Your task to perform on an android device: Open calendar and show me the second week of next month Image 0: 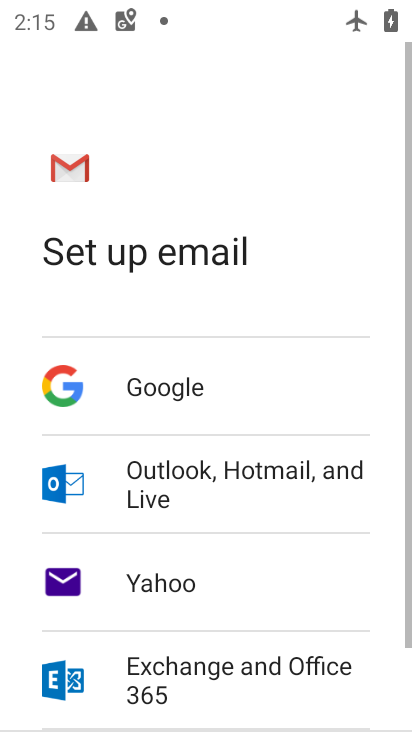
Step 0: press home button
Your task to perform on an android device: Open calendar and show me the second week of next month Image 1: 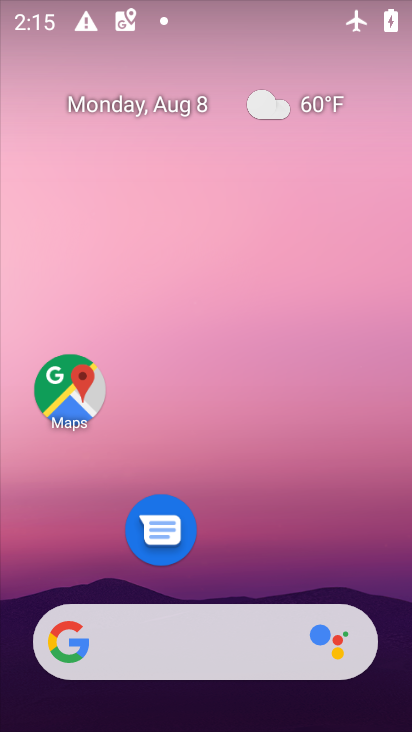
Step 1: drag from (238, 575) to (229, 27)
Your task to perform on an android device: Open calendar and show me the second week of next month Image 2: 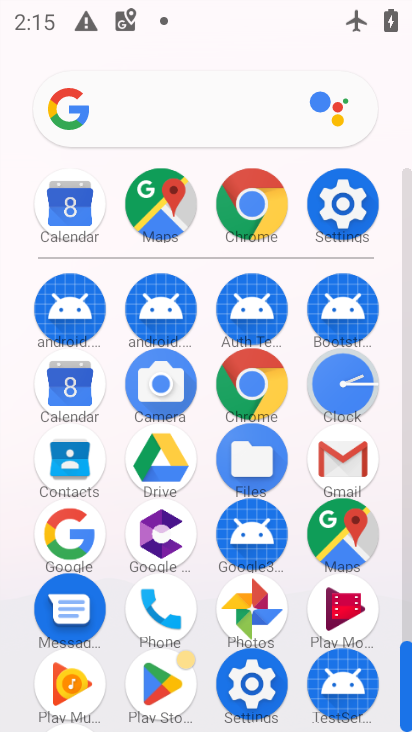
Step 2: click (72, 388)
Your task to perform on an android device: Open calendar and show me the second week of next month Image 3: 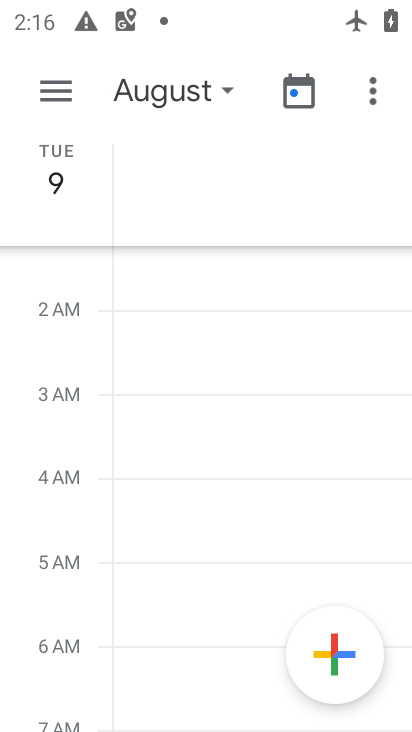
Step 3: click (222, 87)
Your task to perform on an android device: Open calendar and show me the second week of next month Image 4: 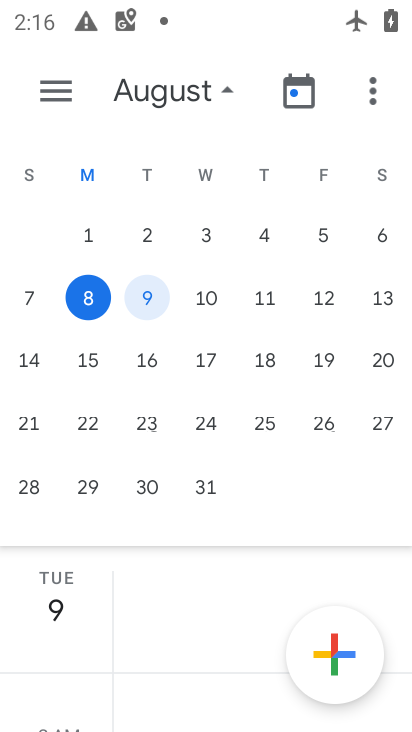
Step 4: drag from (354, 328) to (61, 298)
Your task to perform on an android device: Open calendar and show me the second week of next month Image 5: 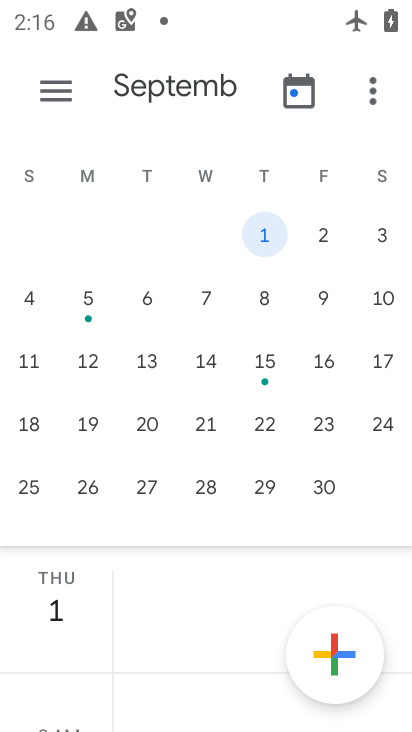
Step 5: click (91, 361)
Your task to perform on an android device: Open calendar and show me the second week of next month Image 6: 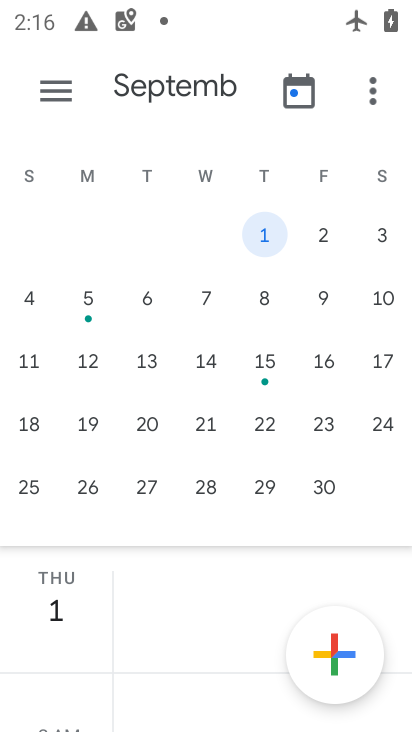
Step 6: click (91, 364)
Your task to perform on an android device: Open calendar and show me the second week of next month Image 7: 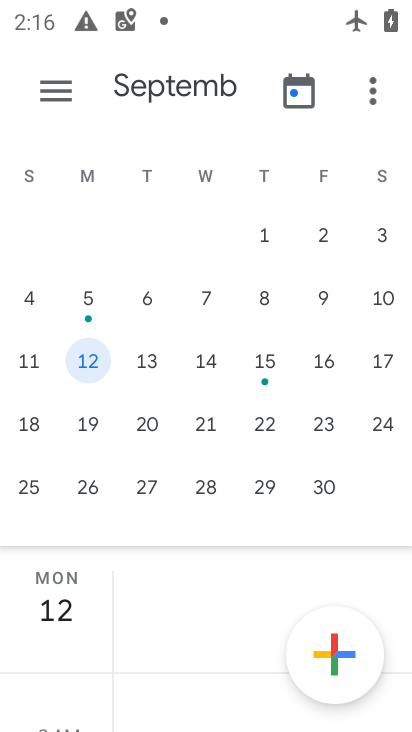
Step 7: click (65, 89)
Your task to perform on an android device: Open calendar and show me the second week of next month Image 8: 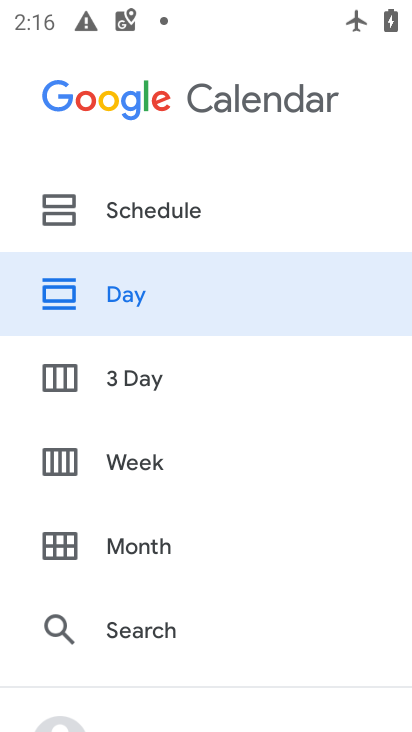
Step 8: click (130, 457)
Your task to perform on an android device: Open calendar and show me the second week of next month Image 9: 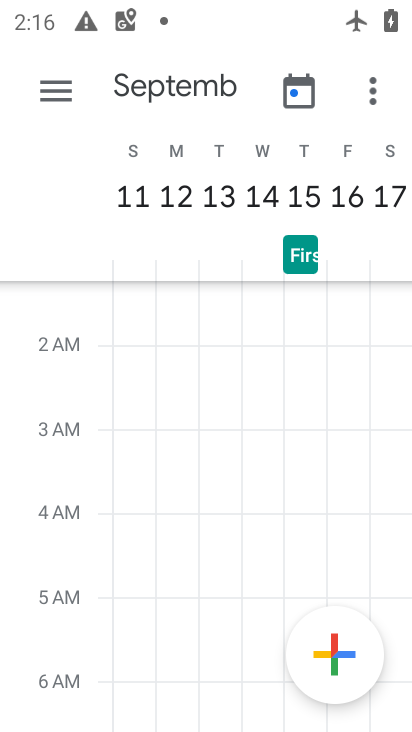
Step 9: task complete